Your task to perform on an android device: Open battery settings Image 0: 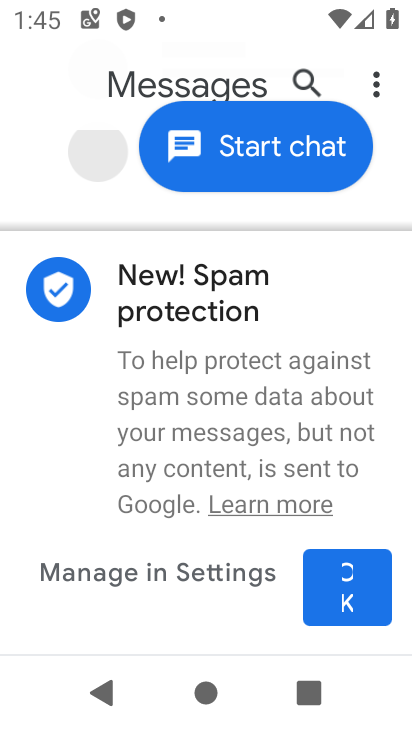
Step 0: task complete